Your task to perform on an android device: turn vacation reply on in the gmail app Image 0: 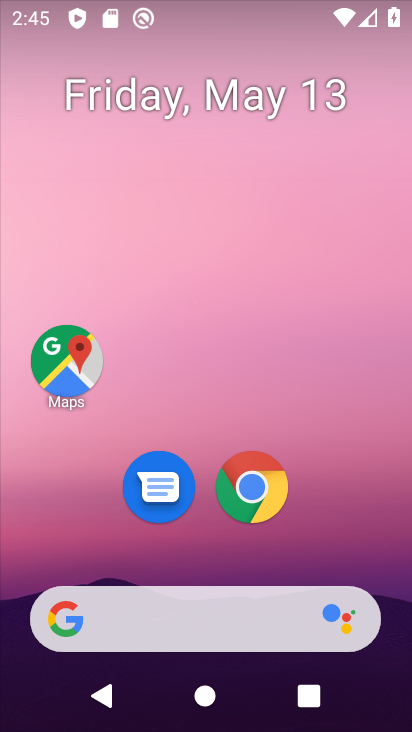
Step 0: drag from (373, 505) to (301, 82)
Your task to perform on an android device: turn vacation reply on in the gmail app Image 1: 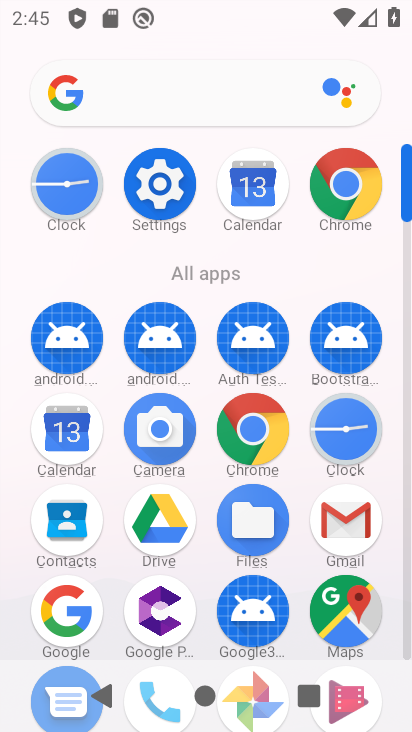
Step 1: click (351, 531)
Your task to perform on an android device: turn vacation reply on in the gmail app Image 2: 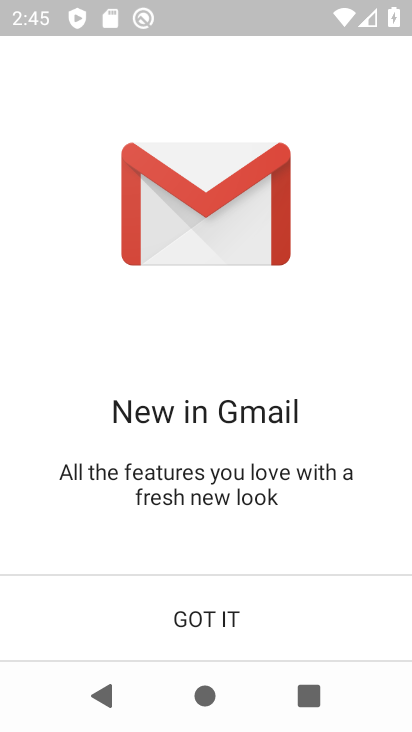
Step 2: click (195, 620)
Your task to perform on an android device: turn vacation reply on in the gmail app Image 3: 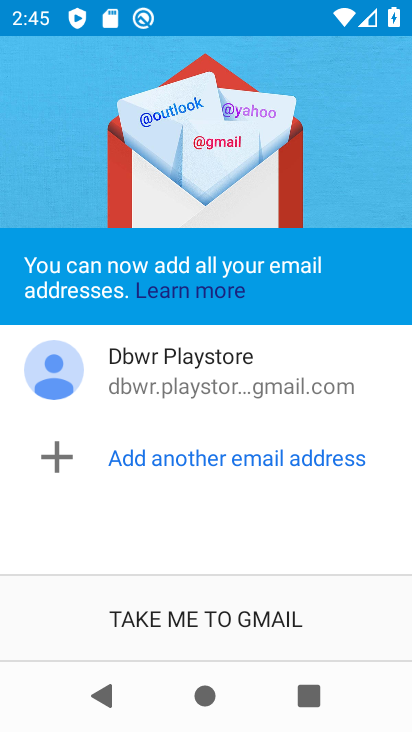
Step 3: click (227, 615)
Your task to perform on an android device: turn vacation reply on in the gmail app Image 4: 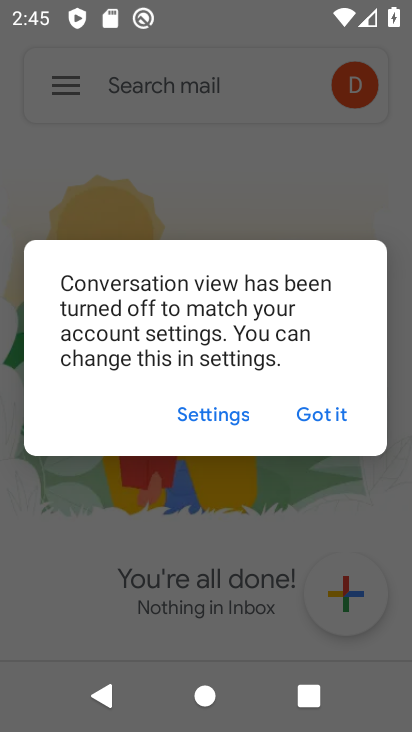
Step 4: click (331, 415)
Your task to perform on an android device: turn vacation reply on in the gmail app Image 5: 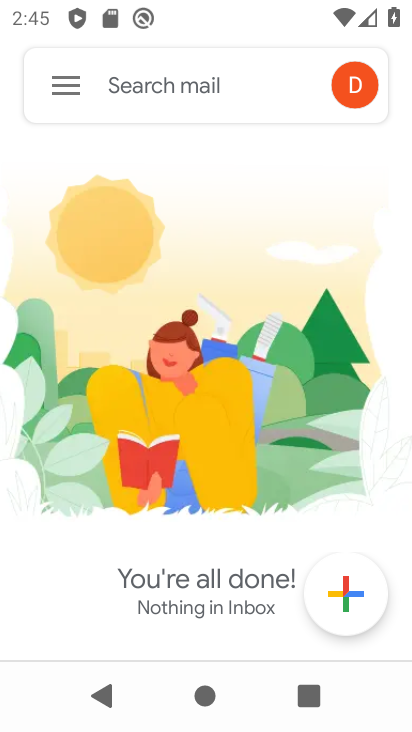
Step 5: click (50, 107)
Your task to perform on an android device: turn vacation reply on in the gmail app Image 6: 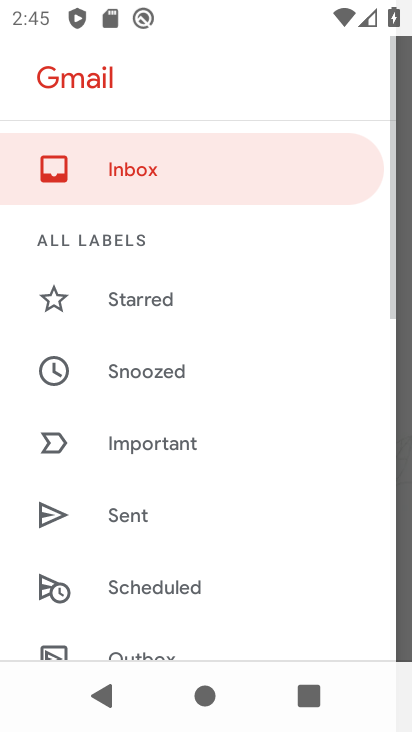
Step 6: drag from (165, 567) to (246, 213)
Your task to perform on an android device: turn vacation reply on in the gmail app Image 7: 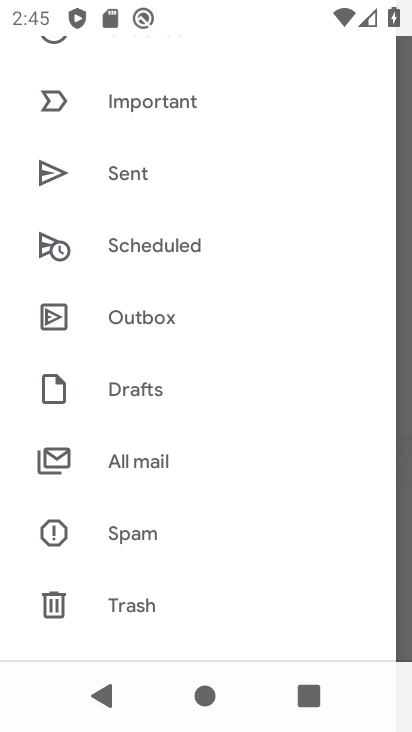
Step 7: drag from (185, 565) to (268, 204)
Your task to perform on an android device: turn vacation reply on in the gmail app Image 8: 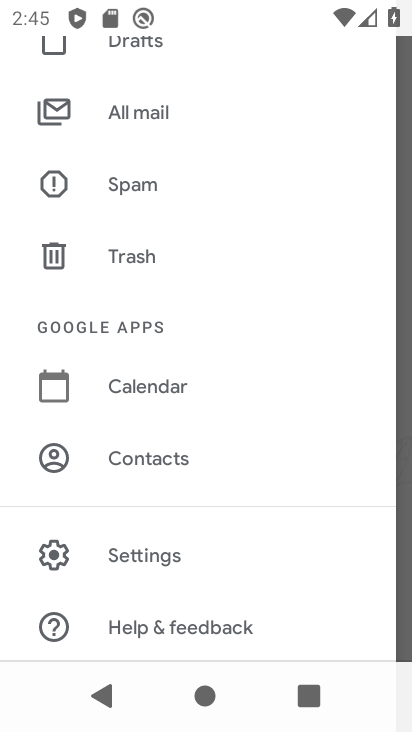
Step 8: click (174, 546)
Your task to perform on an android device: turn vacation reply on in the gmail app Image 9: 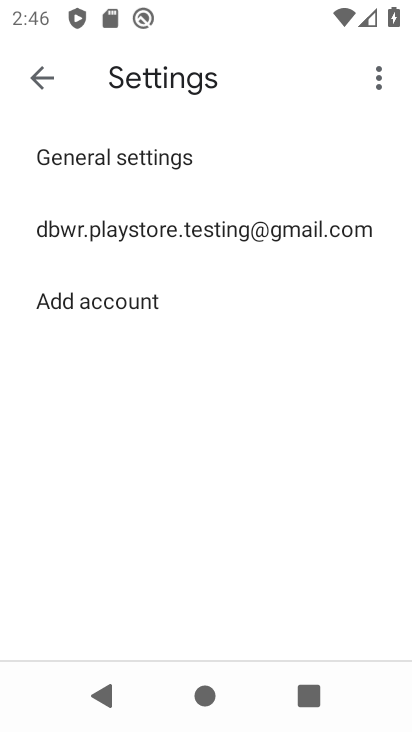
Step 9: click (118, 237)
Your task to perform on an android device: turn vacation reply on in the gmail app Image 10: 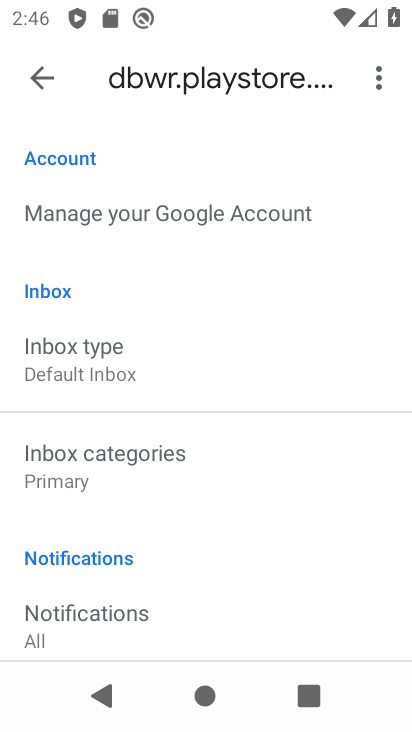
Step 10: drag from (224, 519) to (209, 199)
Your task to perform on an android device: turn vacation reply on in the gmail app Image 11: 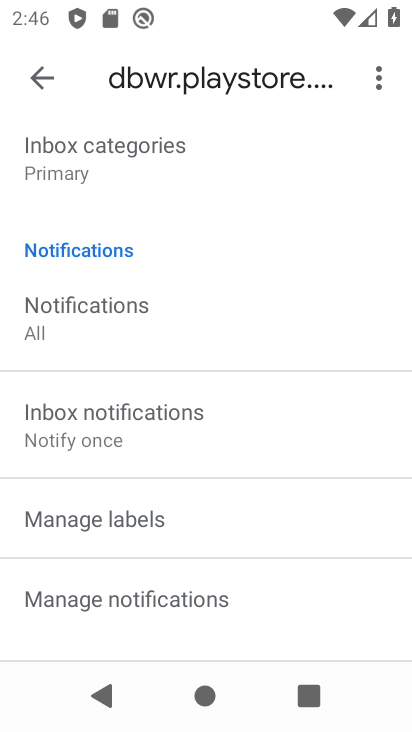
Step 11: drag from (162, 544) to (251, 156)
Your task to perform on an android device: turn vacation reply on in the gmail app Image 12: 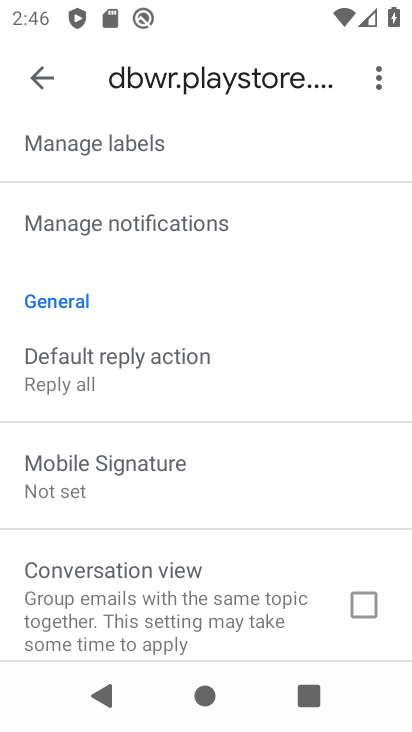
Step 12: drag from (126, 594) to (148, 260)
Your task to perform on an android device: turn vacation reply on in the gmail app Image 13: 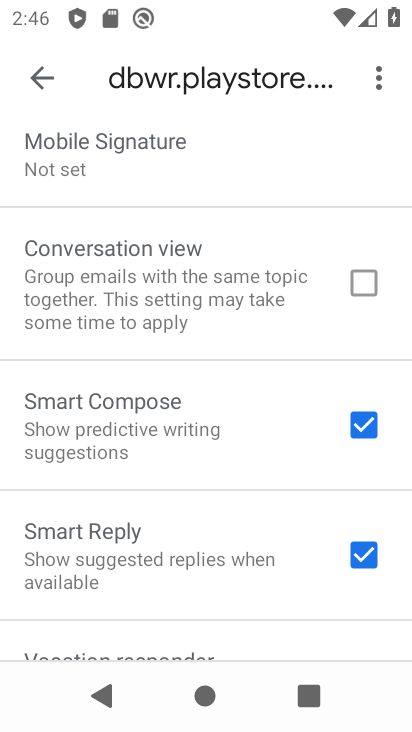
Step 13: drag from (161, 532) to (196, 253)
Your task to perform on an android device: turn vacation reply on in the gmail app Image 14: 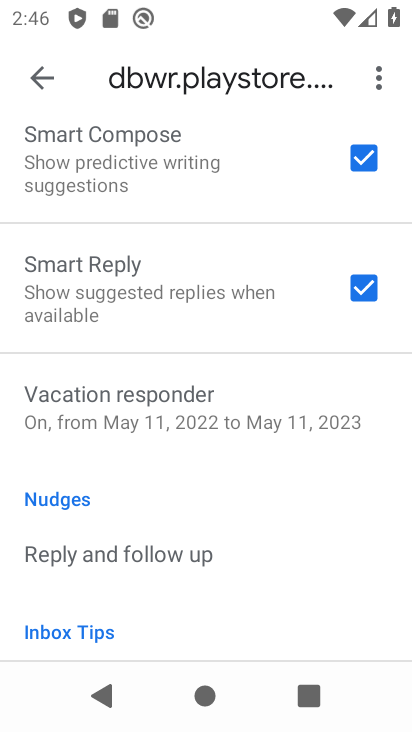
Step 14: click (229, 420)
Your task to perform on an android device: turn vacation reply on in the gmail app Image 15: 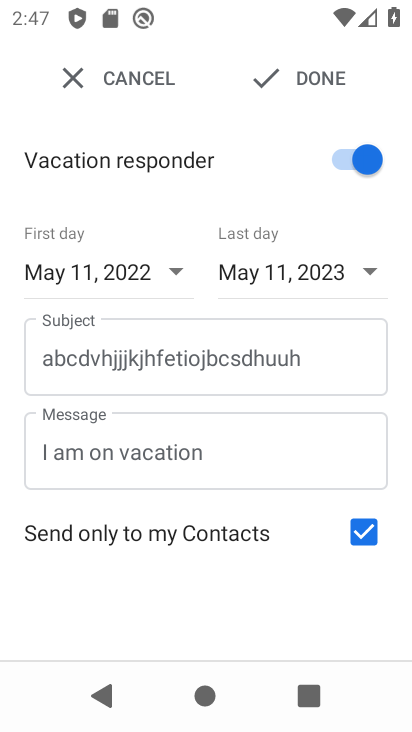
Step 15: task complete